Your task to perform on an android device: Open sound settings Image 0: 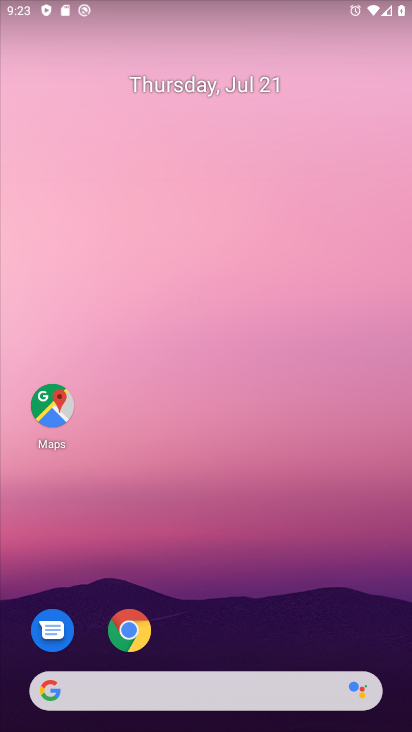
Step 0: drag from (212, 714) to (212, 347)
Your task to perform on an android device: Open sound settings Image 1: 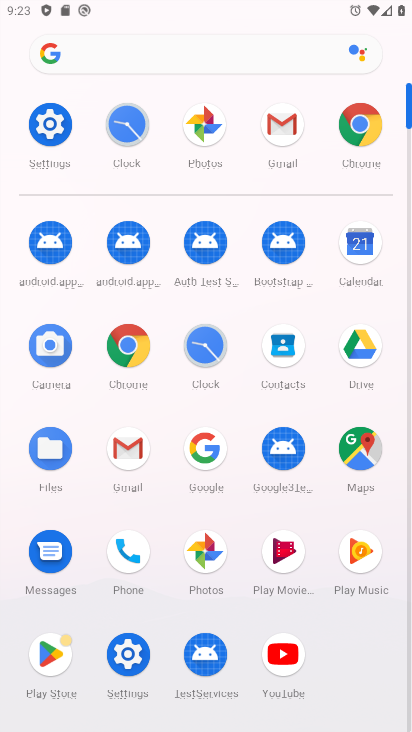
Step 1: click (50, 123)
Your task to perform on an android device: Open sound settings Image 2: 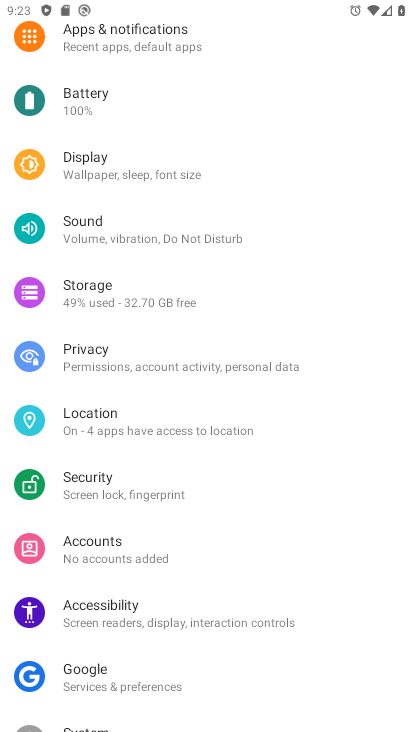
Step 2: click (90, 230)
Your task to perform on an android device: Open sound settings Image 3: 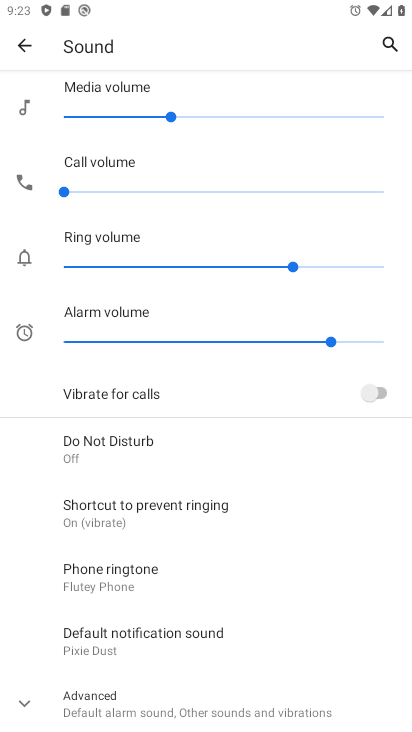
Step 3: task complete